Your task to perform on an android device: turn off notifications in google photos Image 0: 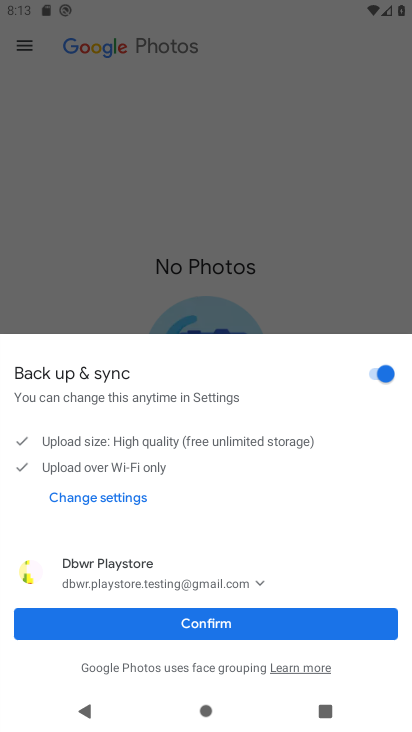
Step 0: click (261, 622)
Your task to perform on an android device: turn off notifications in google photos Image 1: 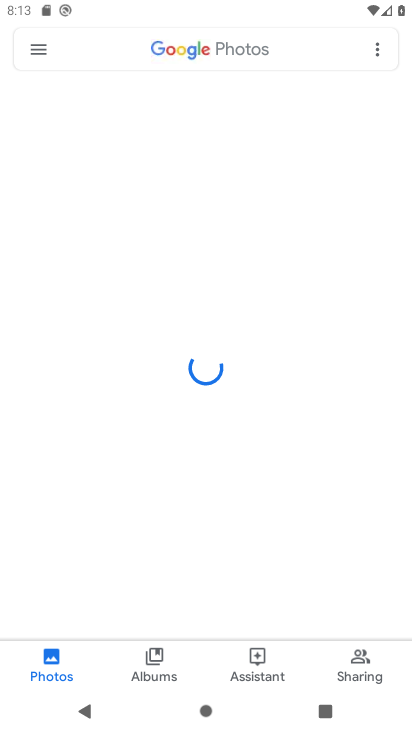
Step 1: click (34, 46)
Your task to perform on an android device: turn off notifications in google photos Image 2: 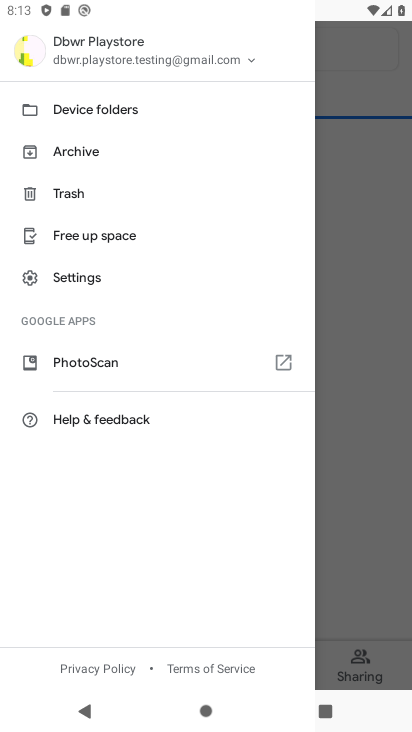
Step 2: click (128, 283)
Your task to perform on an android device: turn off notifications in google photos Image 3: 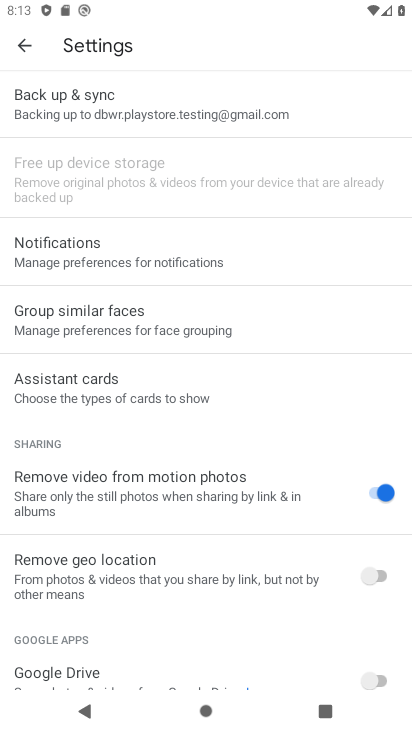
Step 3: click (142, 257)
Your task to perform on an android device: turn off notifications in google photos Image 4: 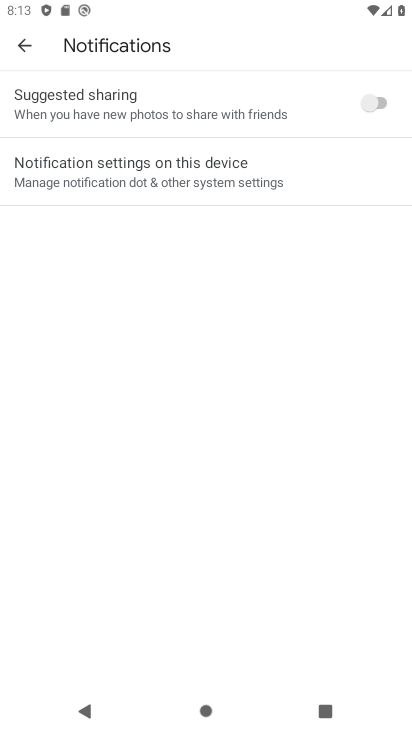
Step 4: click (274, 163)
Your task to perform on an android device: turn off notifications in google photos Image 5: 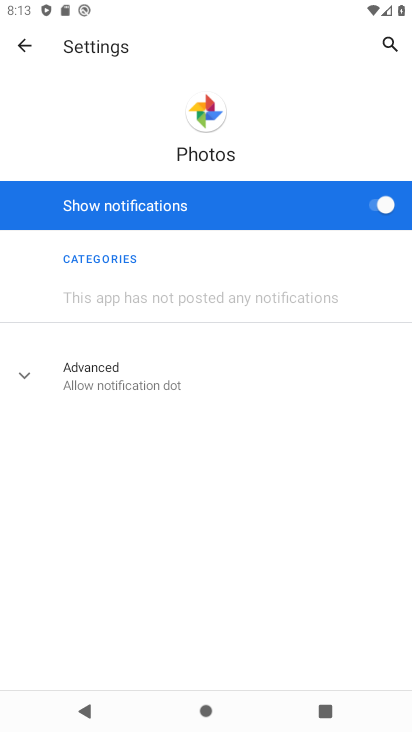
Step 5: click (375, 215)
Your task to perform on an android device: turn off notifications in google photos Image 6: 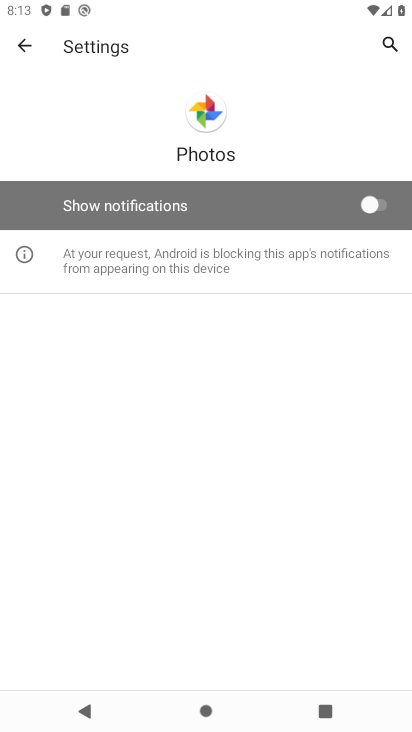
Step 6: task complete